Your task to perform on an android device: allow cookies in the chrome app Image 0: 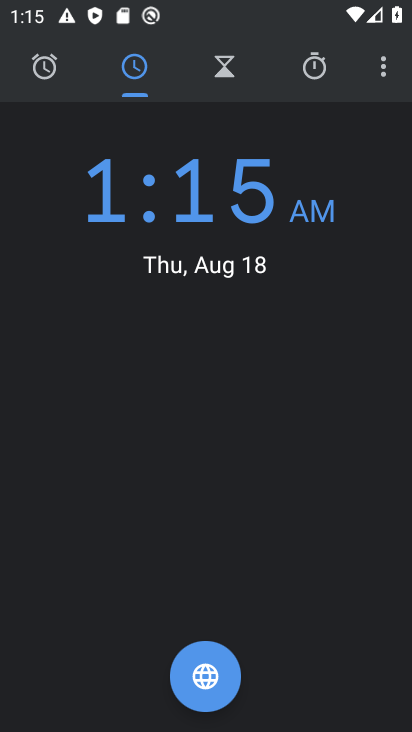
Step 0: press home button
Your task to perform on an android device: allow cookies in the chrome app Image 1: 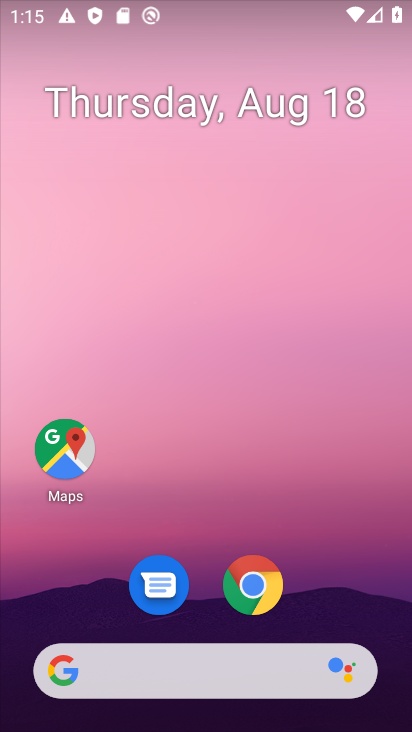
Step 1: click (253, 587)
Your task to perform on an android device: allow cookies in the chrome app Image 2: 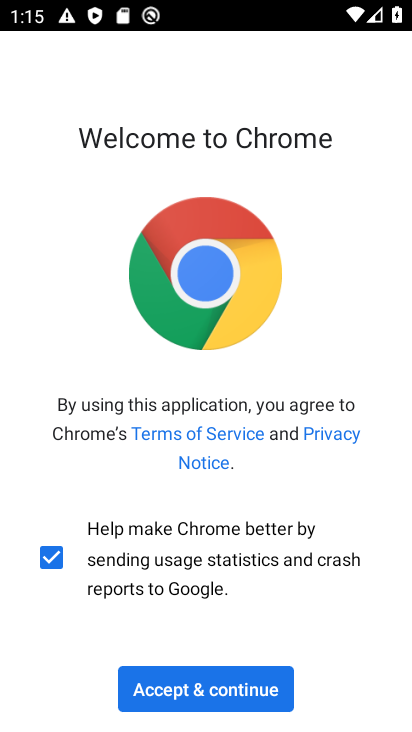
Step 2: click (250, 688)
Your task to perform on an android device: allow cookies in the chrome app Image 3: 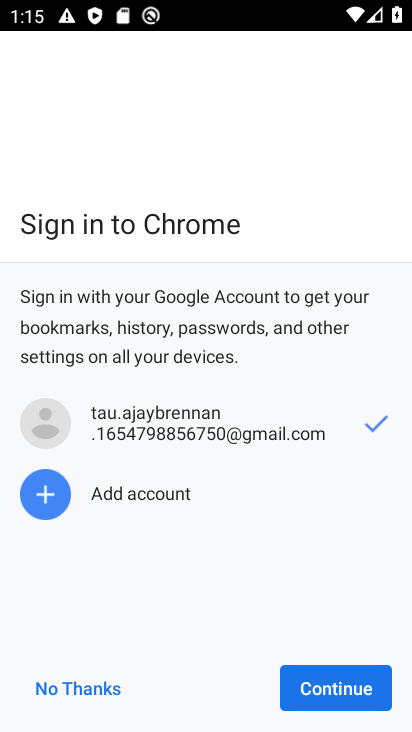
Step 3: click (336, 693)
Your task to perform on an android device: allow cookies in the chrome app Image 4: 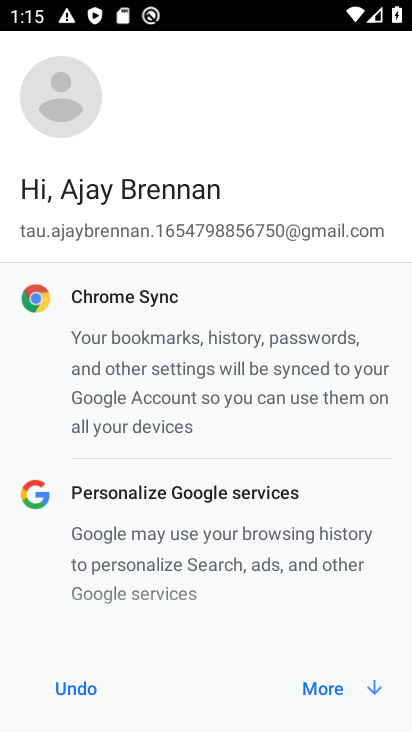
Step 4: click (336, 692)
Your task to perform on an android device: allow cookies in the chrome app Image 5: 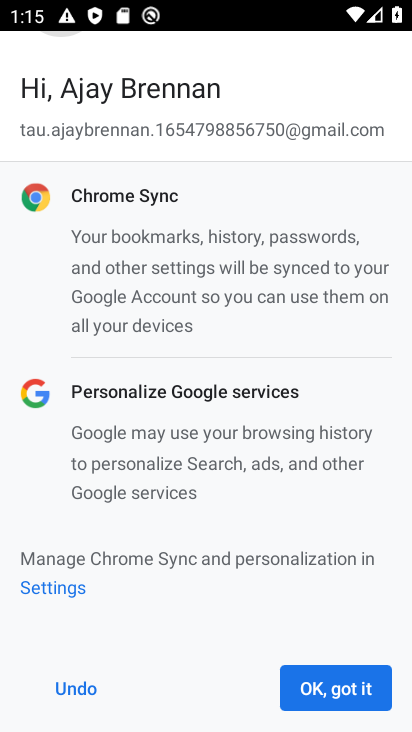
Step 5: click (336, 692)
Your task to perform on an android device: allow cookies in the chrome app Image 6: 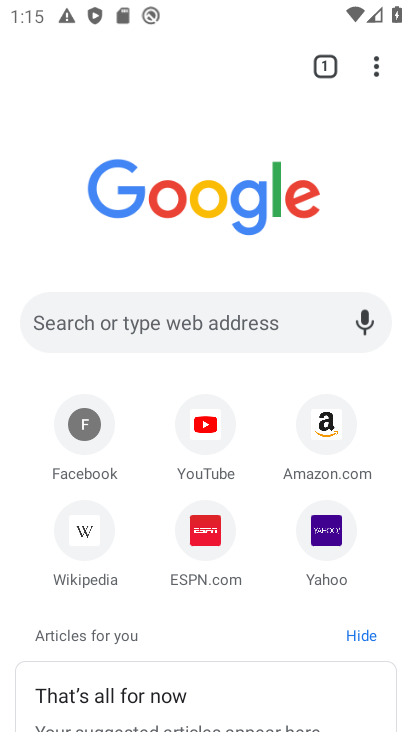
Step 6: click (376, 68)
Your task to perform on an android device: allow cookies in the chrome app Image 7: 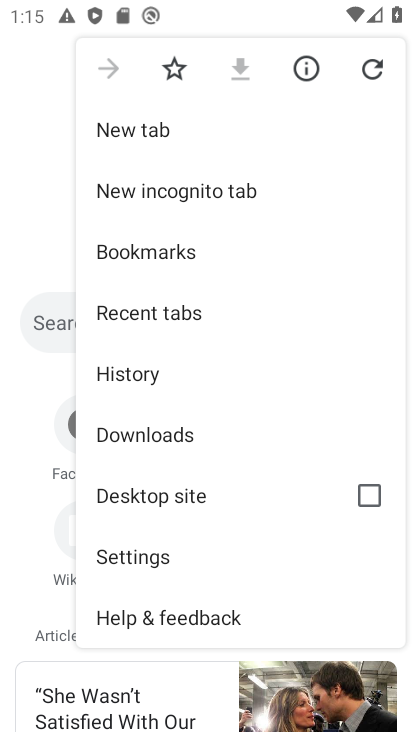
Step 7: click (164, 564)
Your task to perform on an android device: allow cookies in the chrome app Image 8: 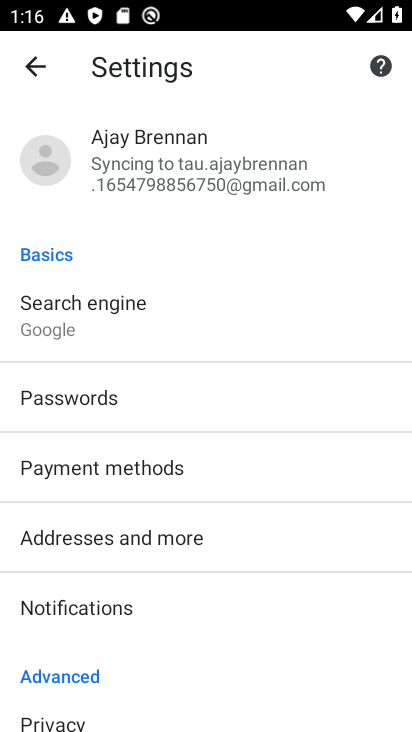
Step 8: drag from (257, 523) to (261, 49)
Your task to perform on an android device: allow cookies in the chrome app Image 9: 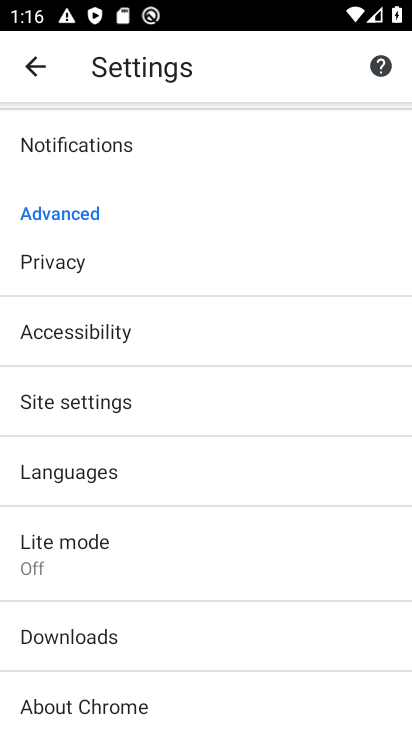
Step 9: click (186, 410)
Your task to perform on an android device: allow cookies in the chrome app Image 10: 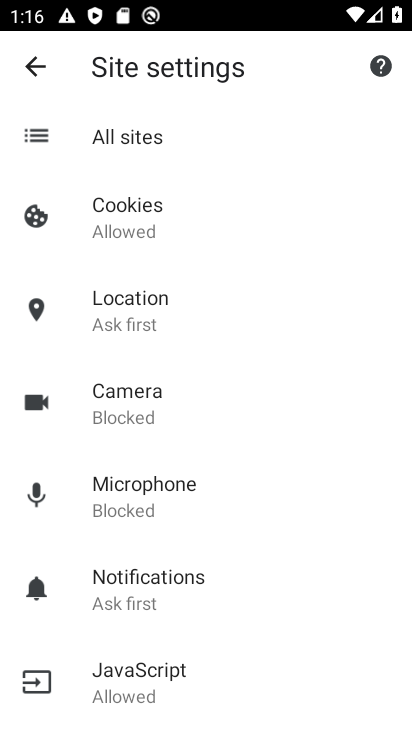
Step 10: click (161, 217)
Your task to perform on an android device: allow cookies in the chrome app Image 11: 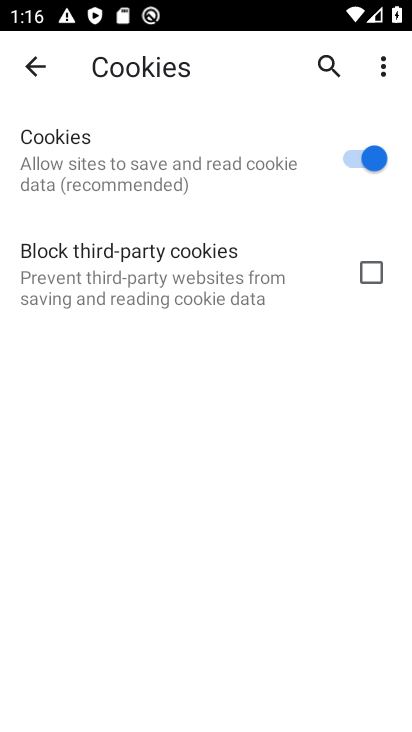
Step 11: task complete